Your task to perform on an android device: turn pop-ups off in chrome Image 0: 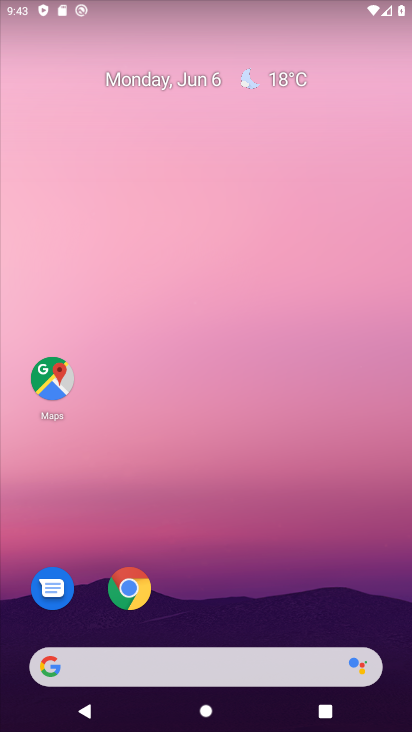
Step 0: press home button
Your task to perform on an android device: turn pop-ups off in chrome Image 1: 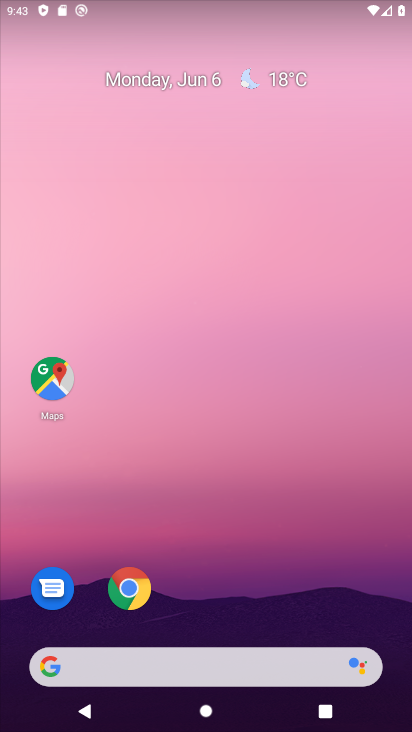
Step 1: click (129, 582)
Your task to perform on an android device: turn pop-ups off in chrome Image 2: 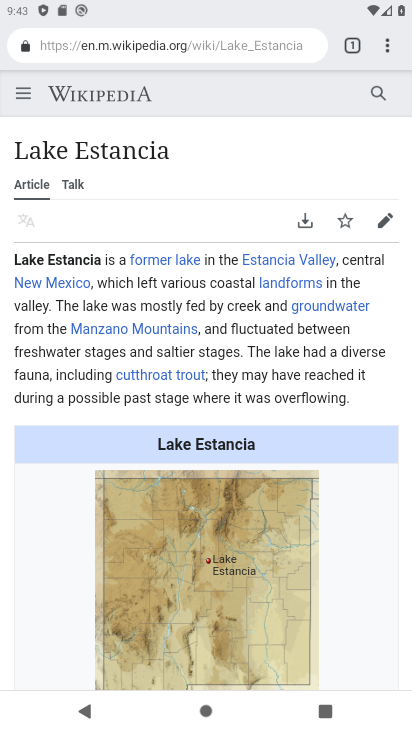
Step 2: click (392, 39)
Your task to perform on an android device: turn pop-ups off in chrome Image 3: 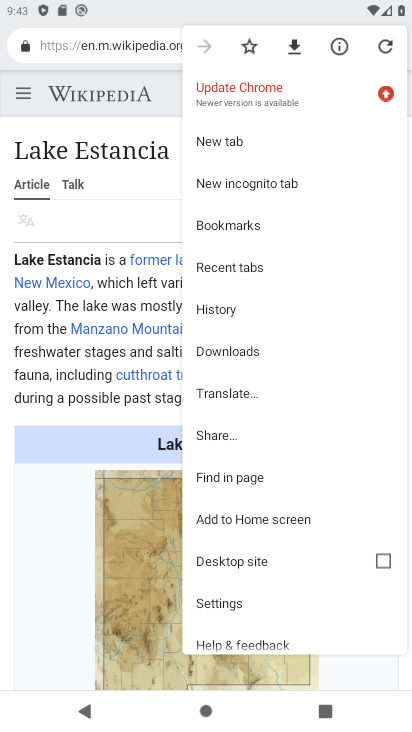
Step 3: click (248, 600)
Your task to perform on an android device: turn pop-ups off in chrome Image 4: 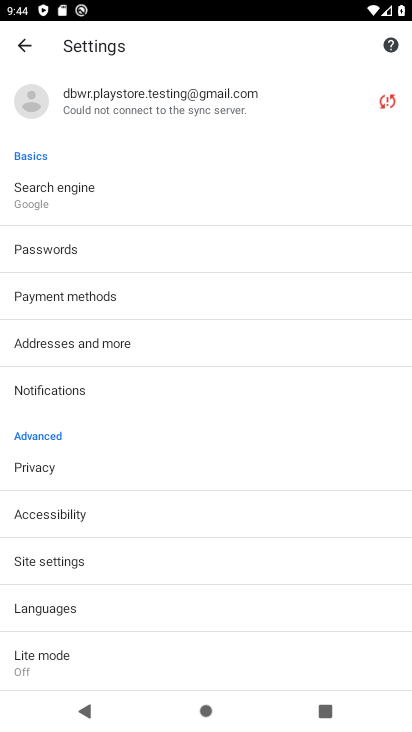
Step 4: click (99, 559)
Your task to perform on an android device: turn pop-ups off in chrome Image 5: 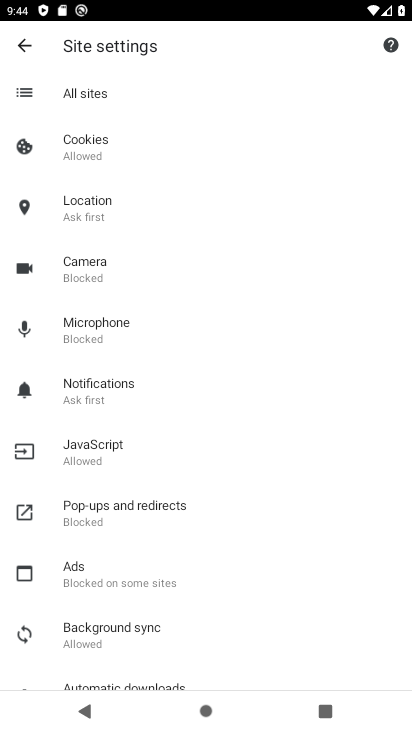
Step 5: click (155, 513)
Your task to perform on an android device: turn pop-ups off in chrome Image 6: 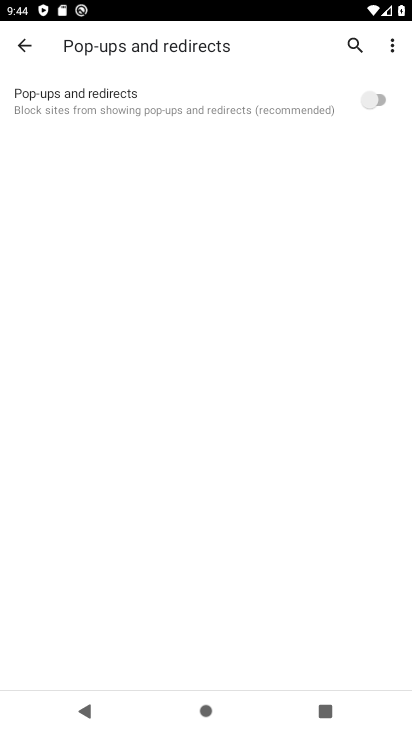
Step 6: task complete